Your task to perform on an android device: Search for the best running shoes on Nike. Image 0: 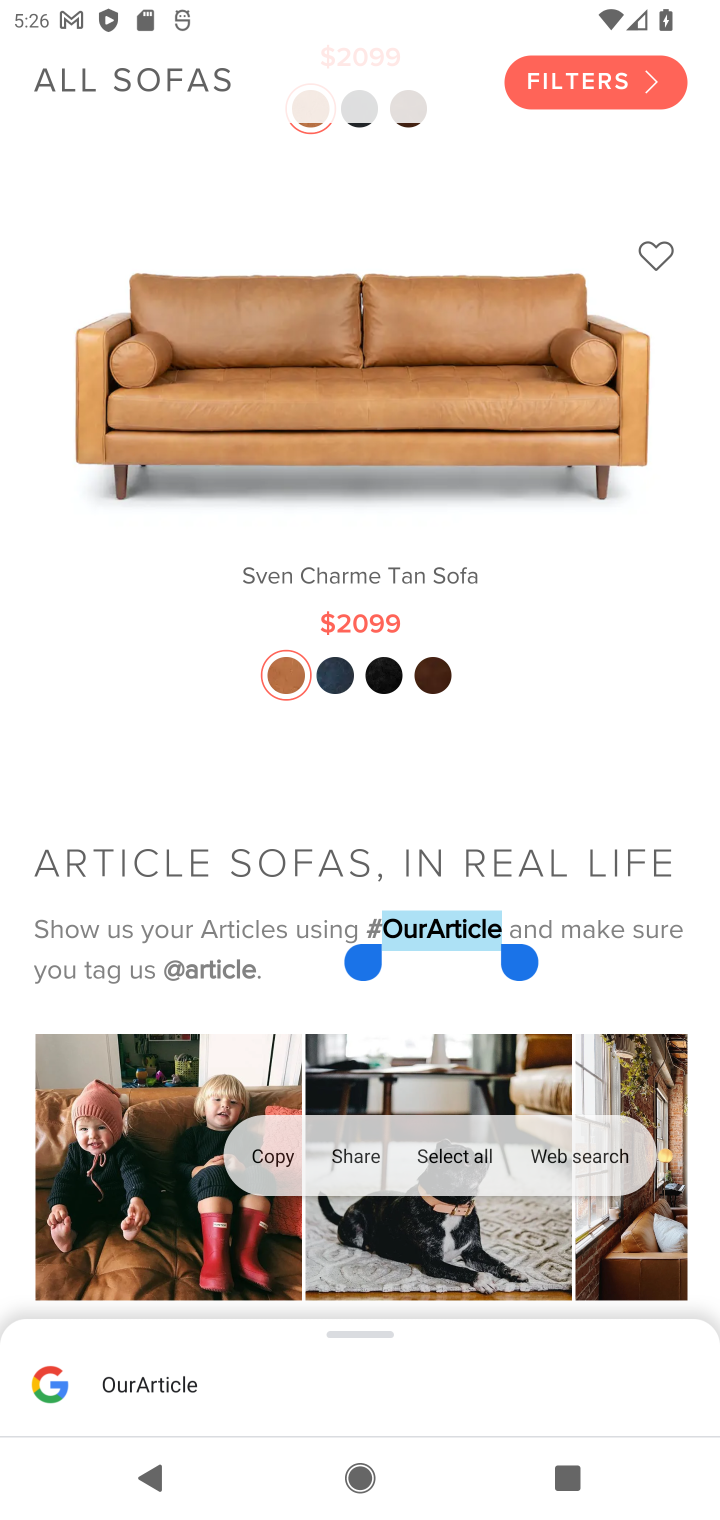
Step 0: press home button
Your task to perform on an android device: Search for the best running shoes on Nike. Image 1: 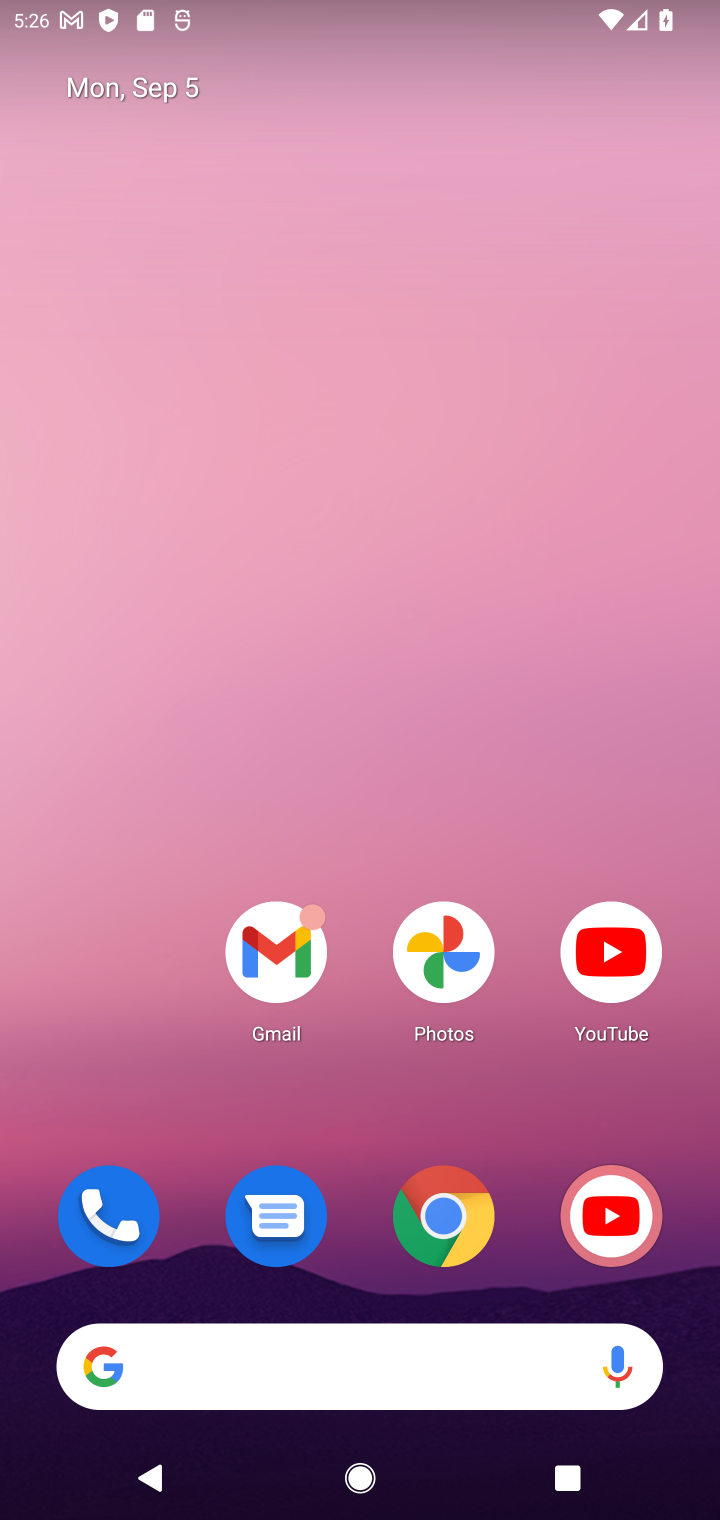
Step 1: drag from (357, 754) to (400, 34)
Your task to perform on an android device: Search for the best running shoes on Nike. Image 2: 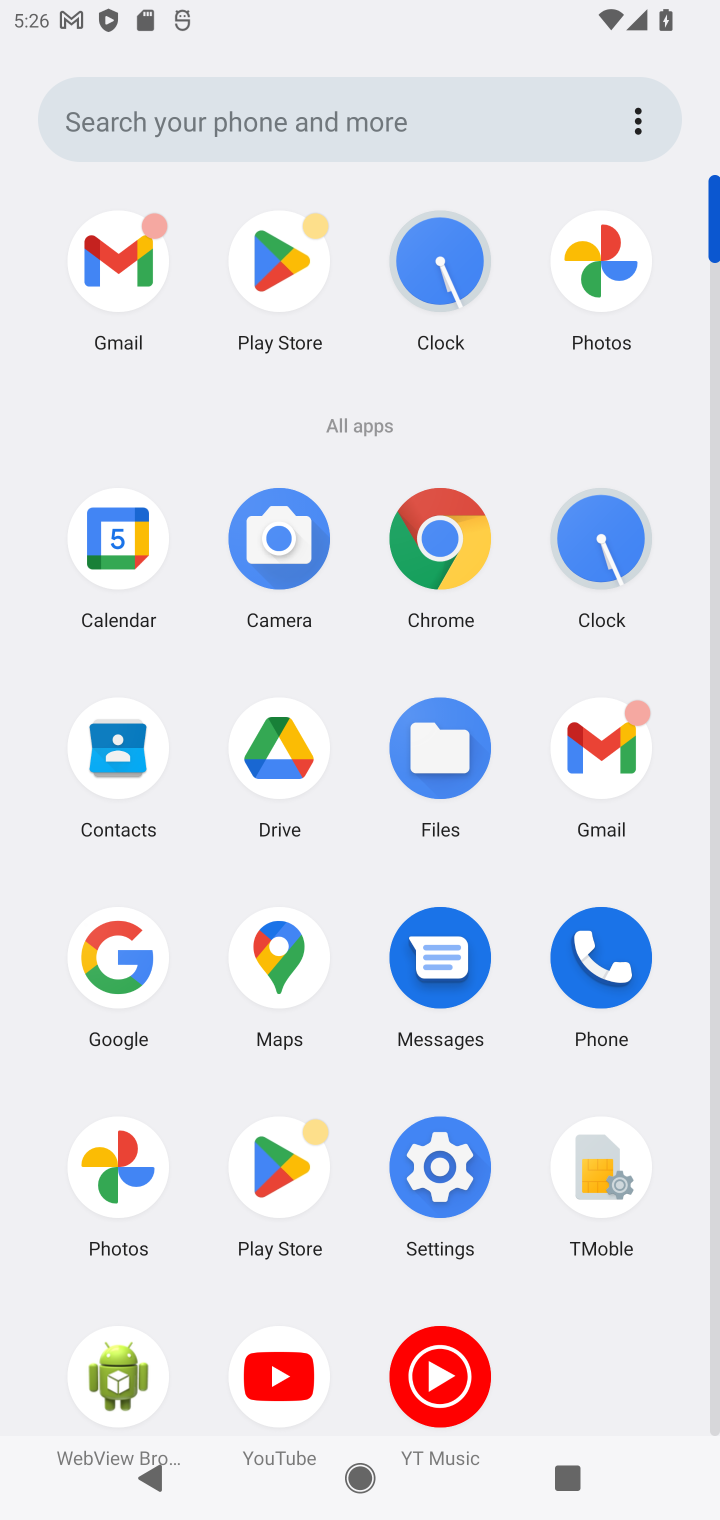
Step 2: click (434, 529)
Your task to perform on an android device: Search for the best running shoes on Nike. Image 3: 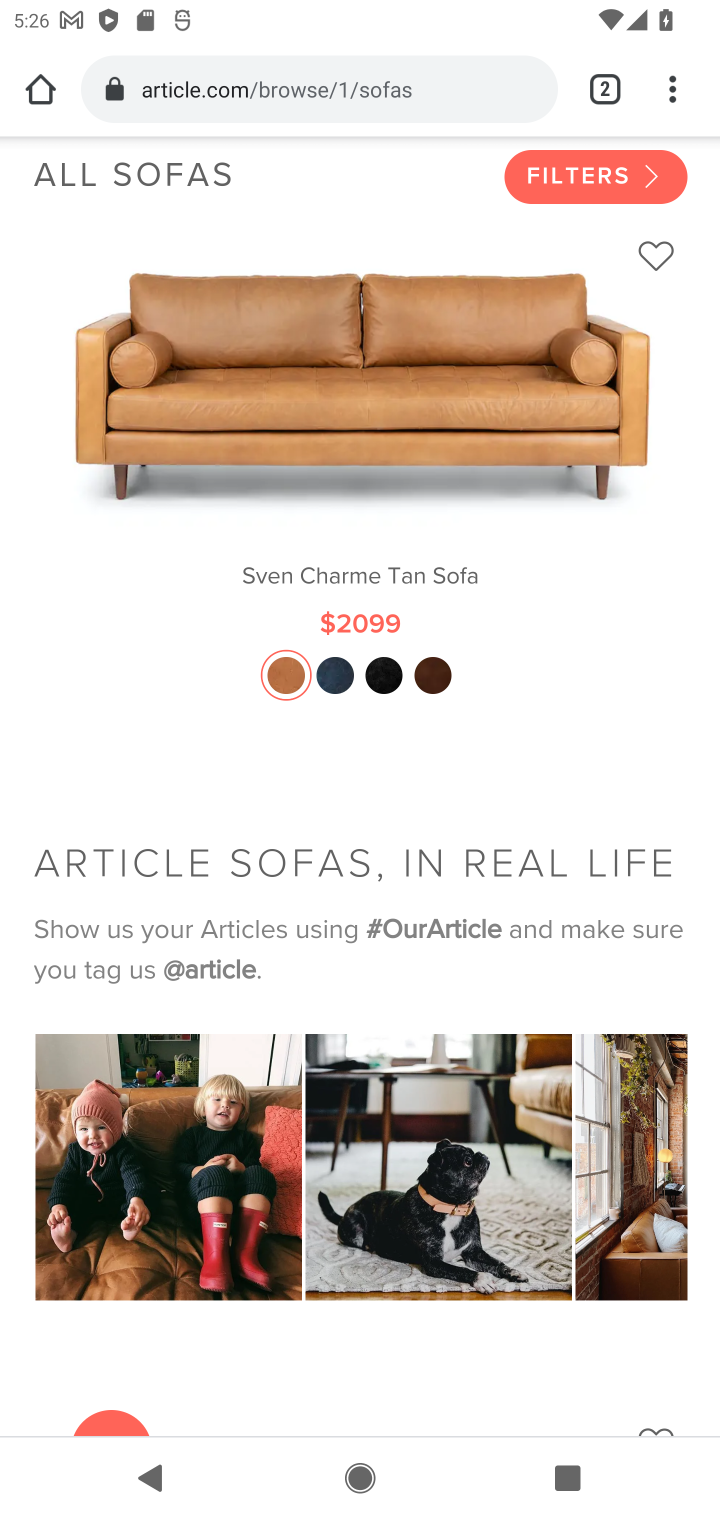
Step 3: drag from (453, 1169) to (452, 287)
Your task to perform on an android device: Search for the best running shoes on Nike. Image 4: 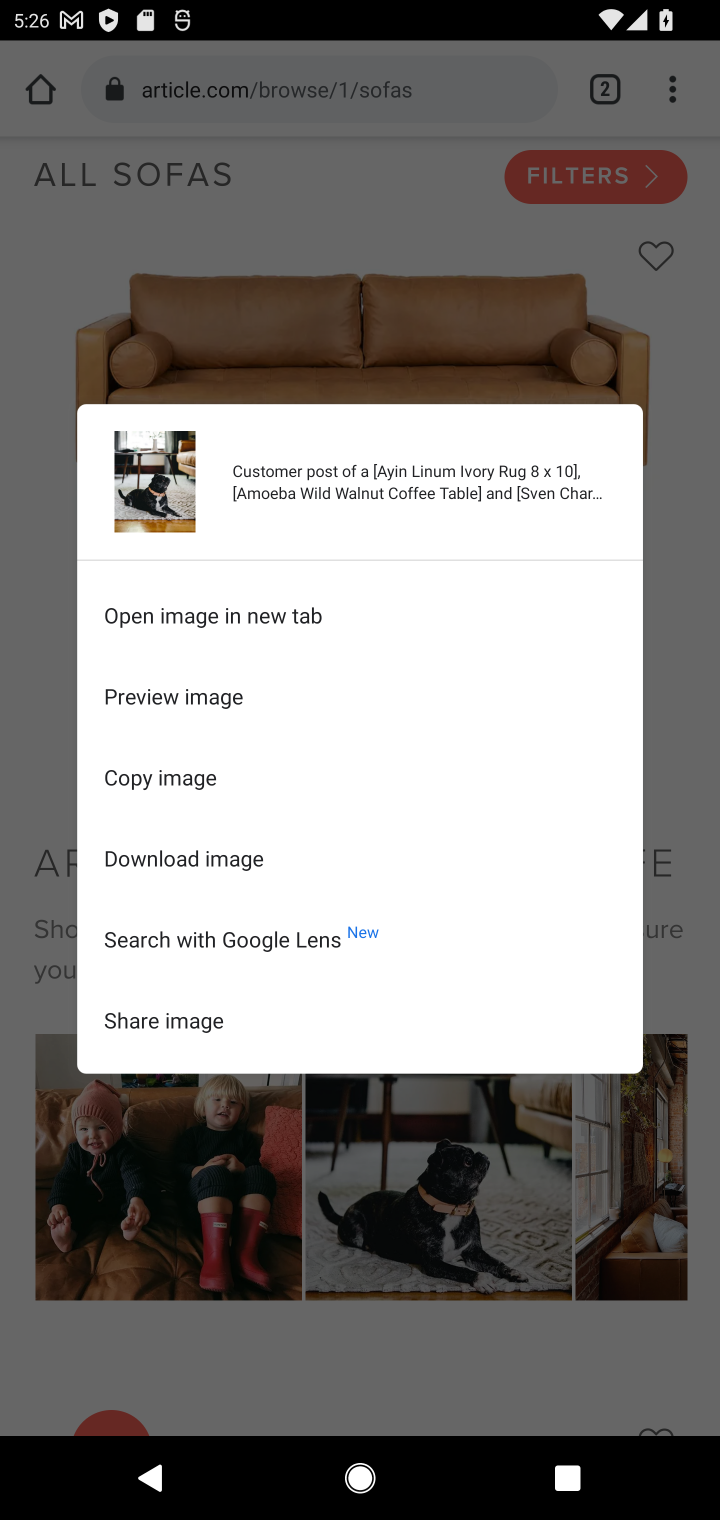
Step 4: click (327, 1226)
Your task to perform on an android device: Search for the best running shoes on Nike. Image 5: 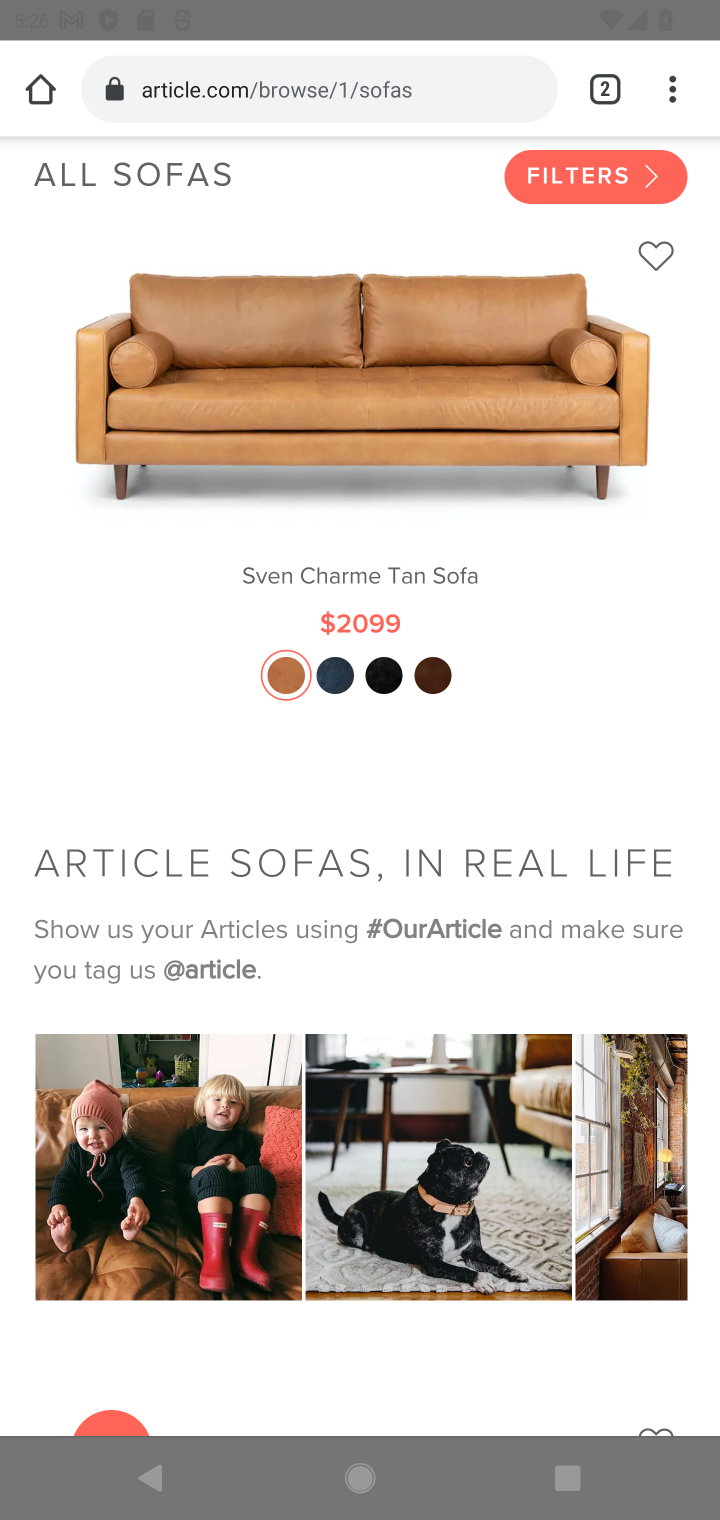
Step 5: click (612, 93)
Your task to perform on an android device: Search for the best running shoes on Nike. Image 6: 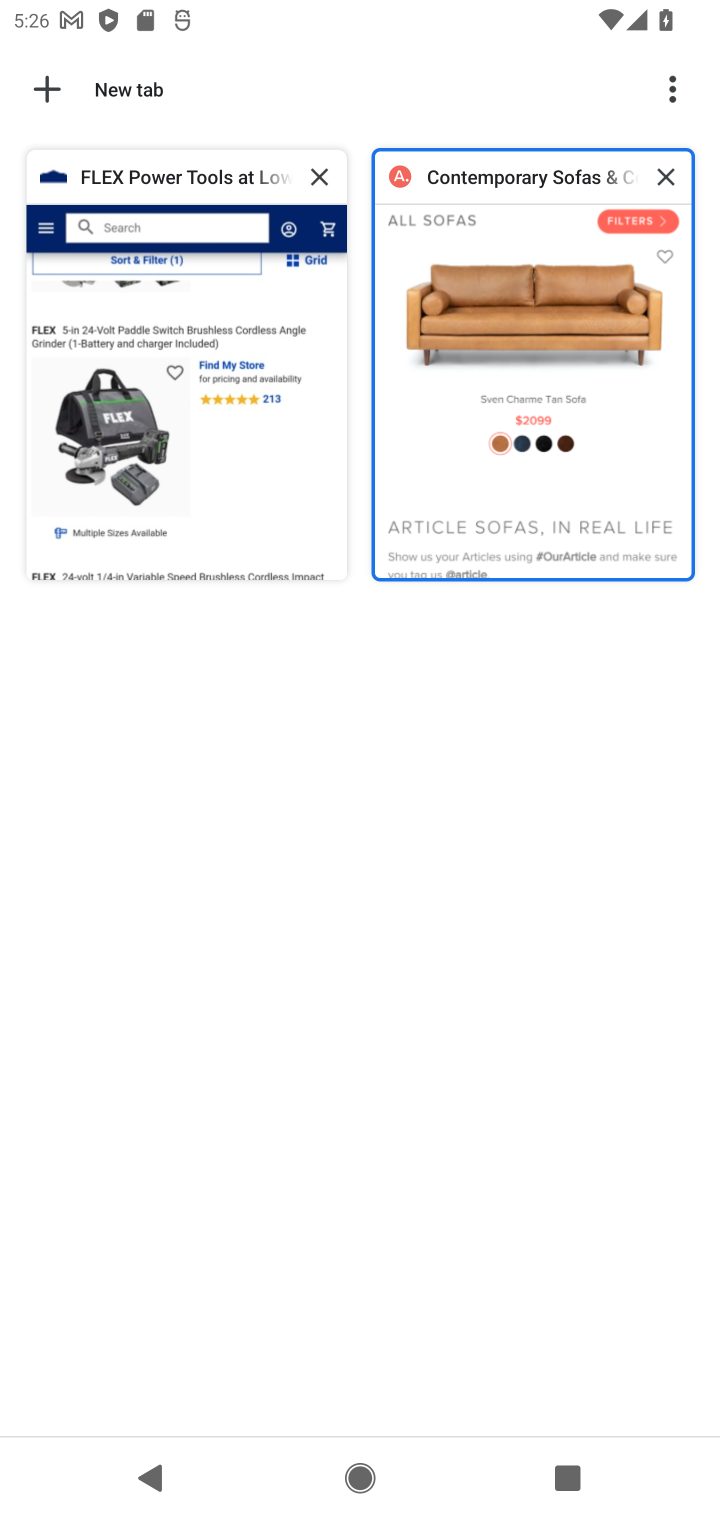
Step 6: click (658, 171)
Your task to perform on an android device: Search for the best running shoes on Nike. Image 7: 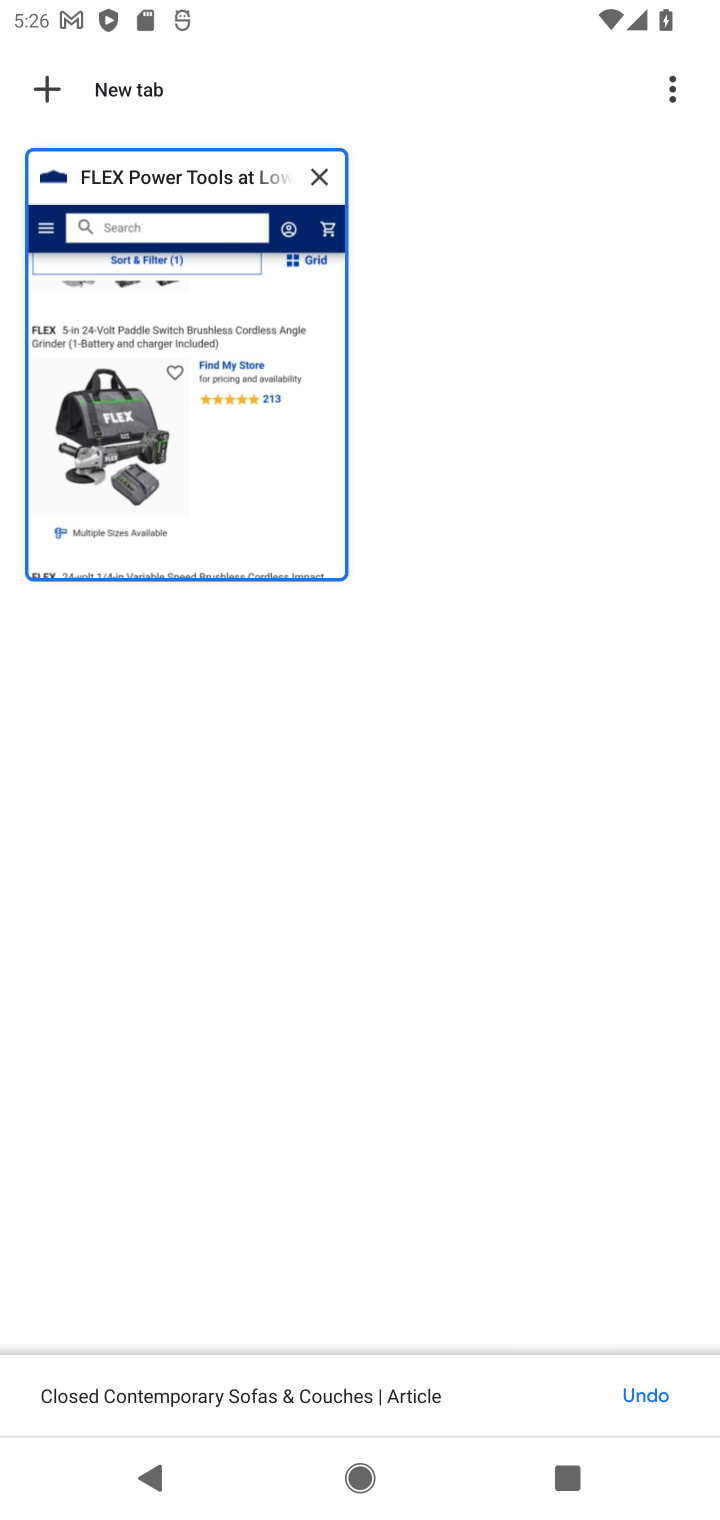
Step 7: click (320, 171)
Your task to perform on an android device: Search for the best running shoes on Nike. Image 8: 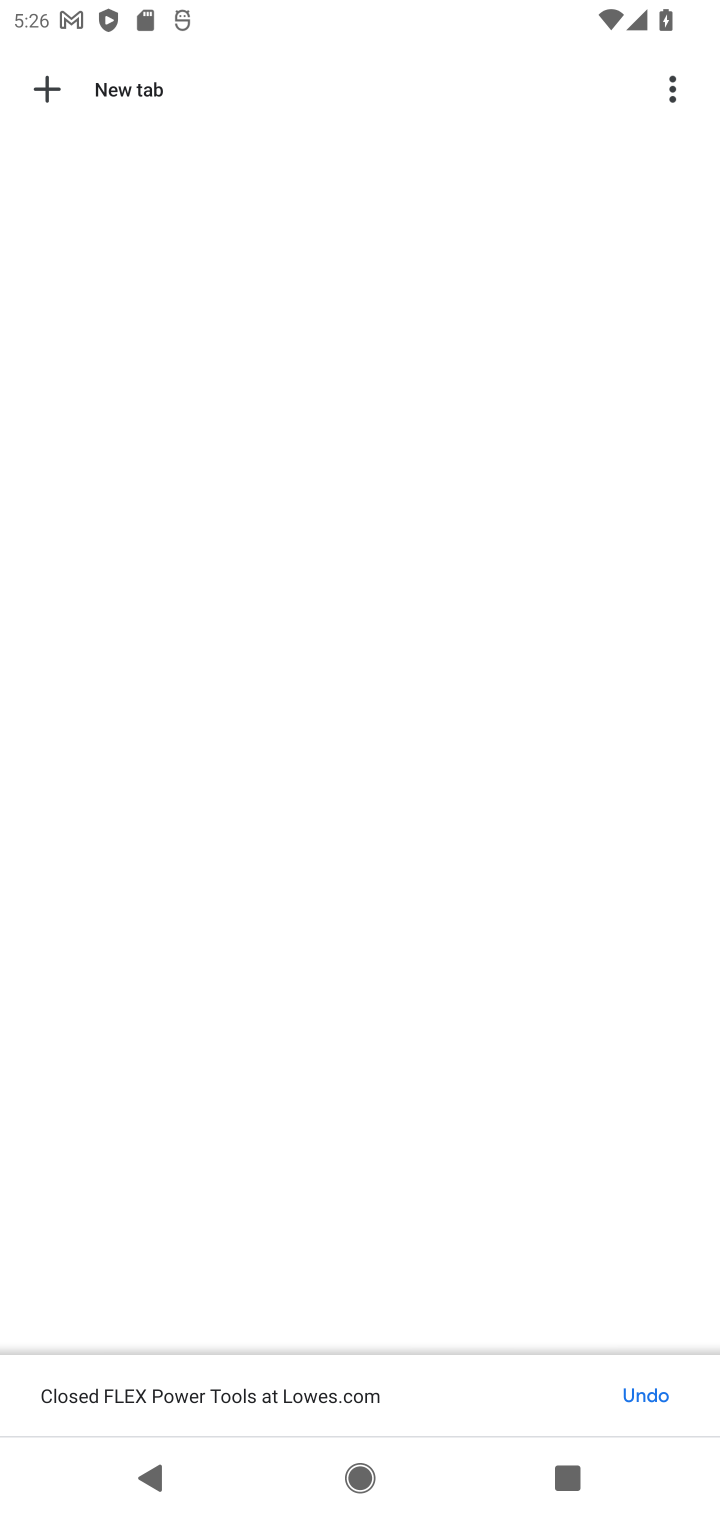
Step 8: click (41, 81)
Your task to perform on an android device: Search for the best running shoes on Nike. Image 9: 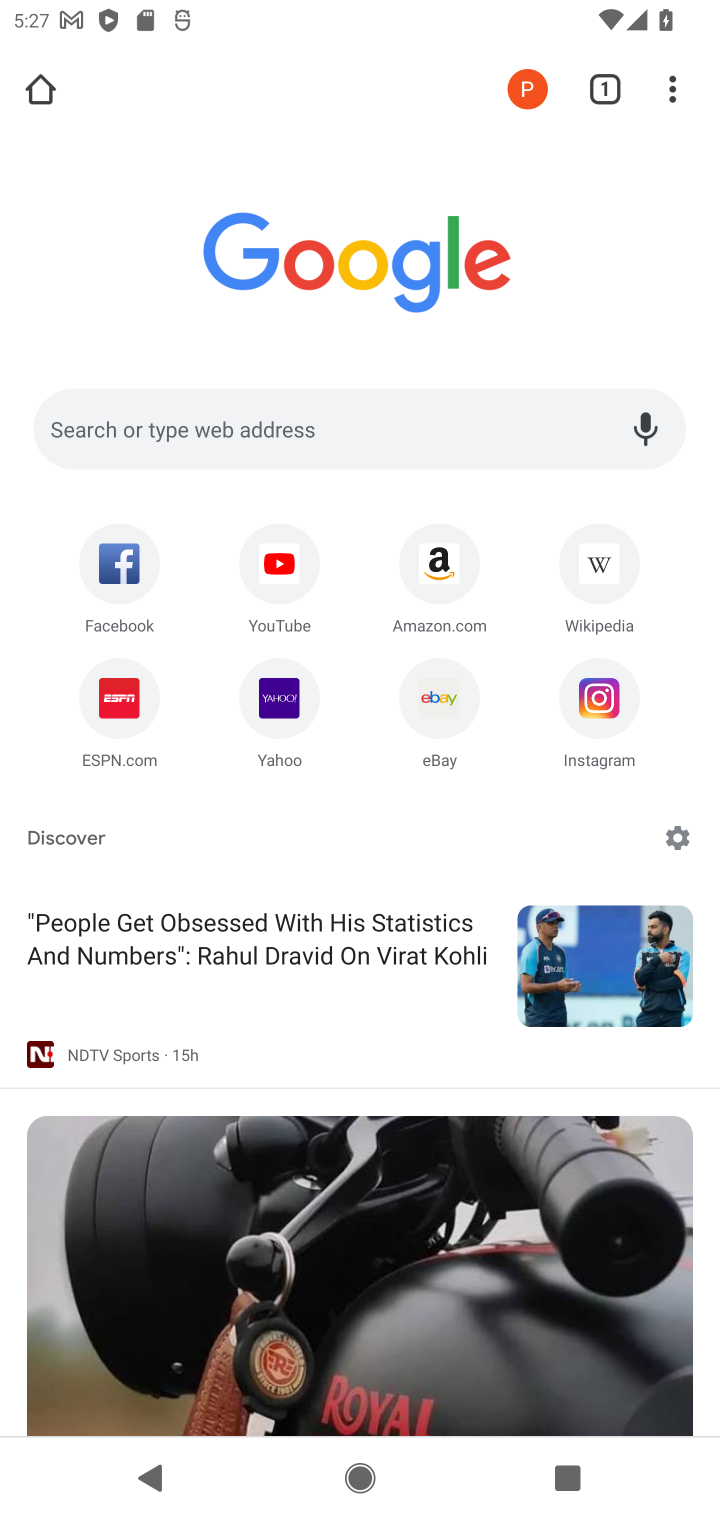
Step 9: click (286, 417)
Your task to perform on an android device: Search for the best running shoes on Nike. Image 10: 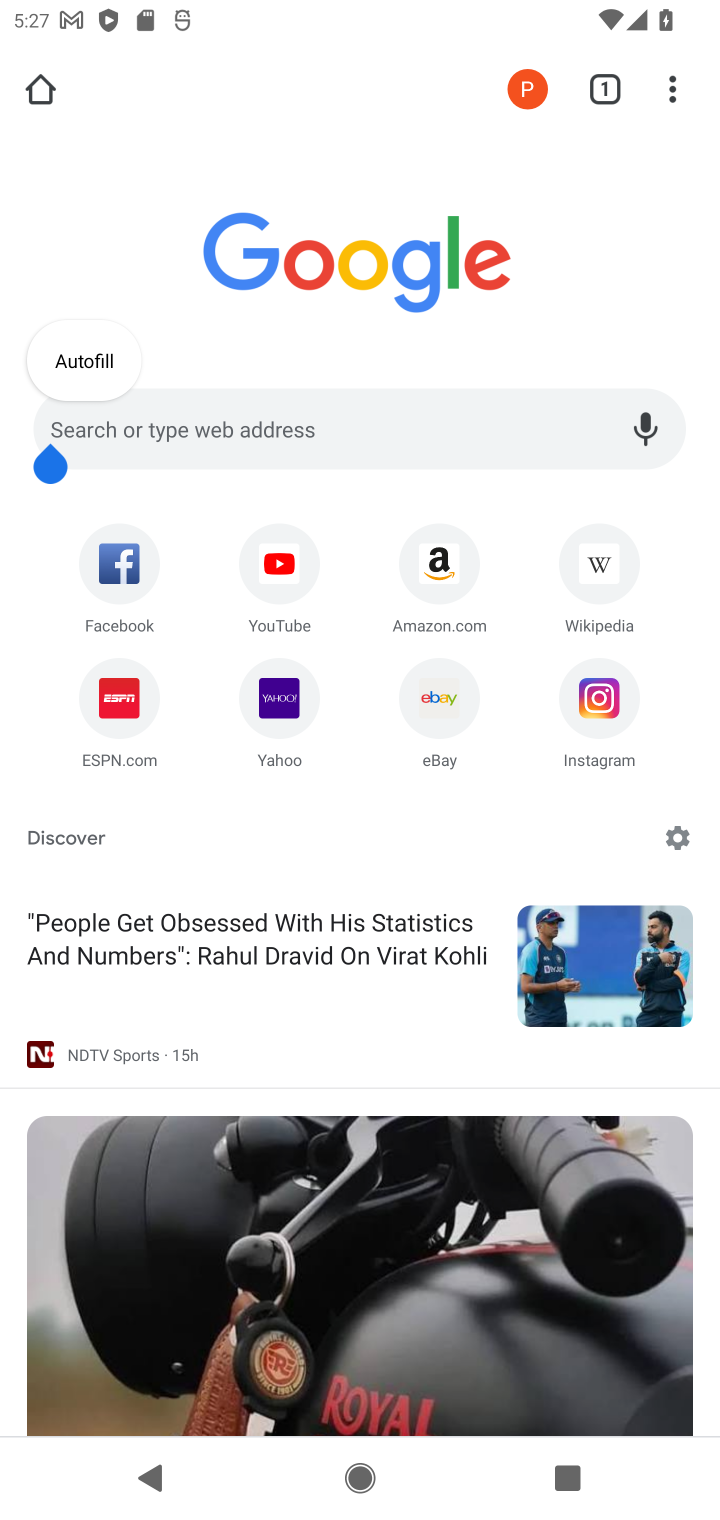
Step 10: type "best running shoes on Nike"
Your task to perform on an android device: Search for the best running shoes on Nike. Image 11: 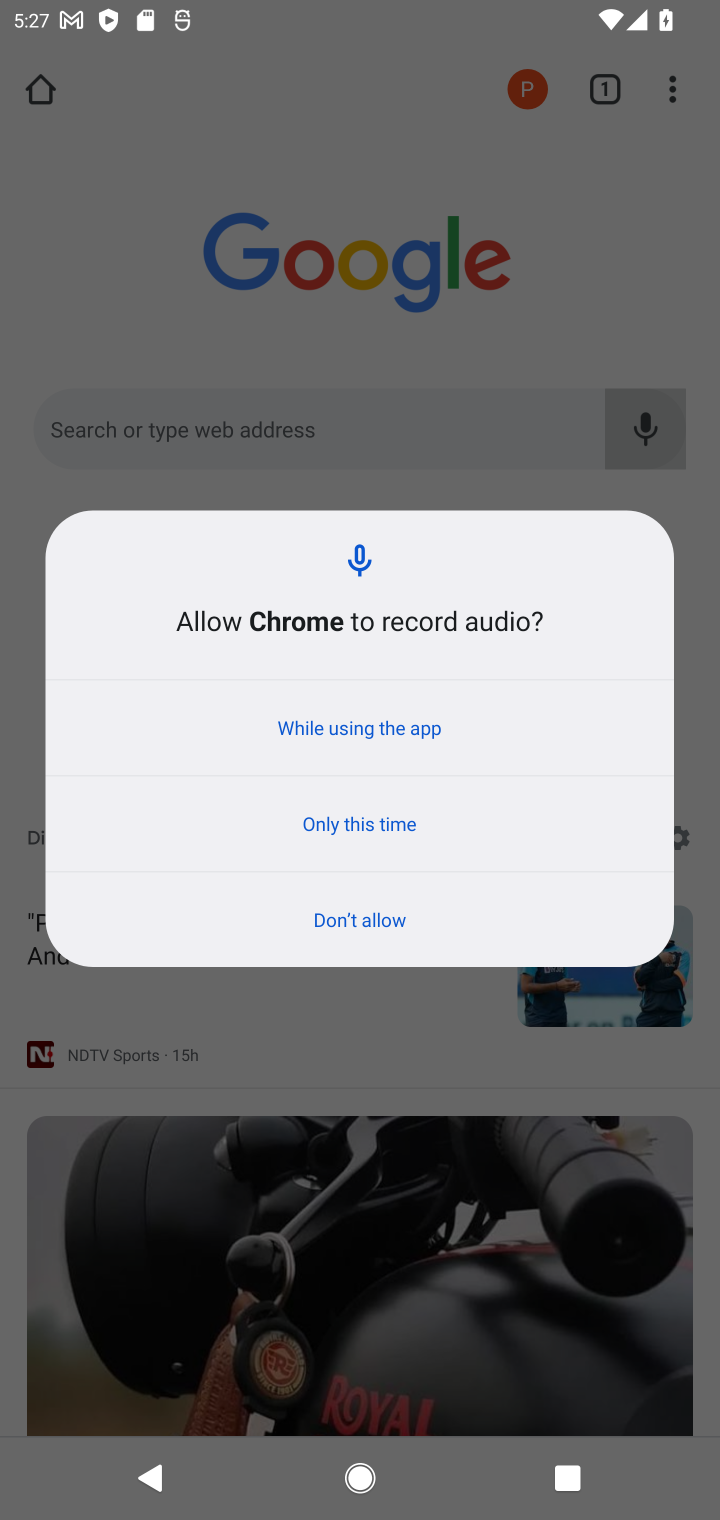
Step 11: click (382, 1173)
Your task to perform on an android device: Search for the best running shoes on Nike. Image 12: 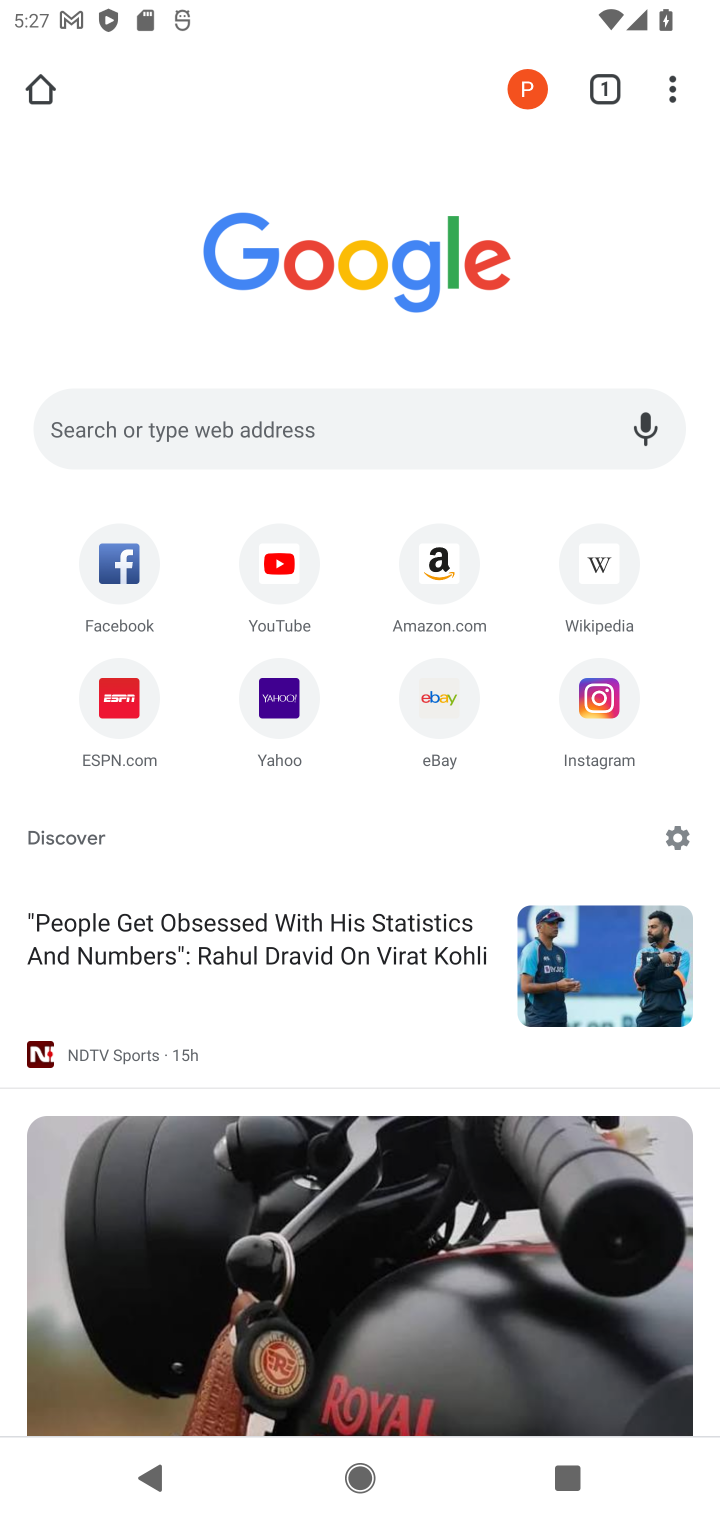
Step 12: click (292, 404)
Your task to perform on an android device: Search for the best running shoes on Nike. Image 13: 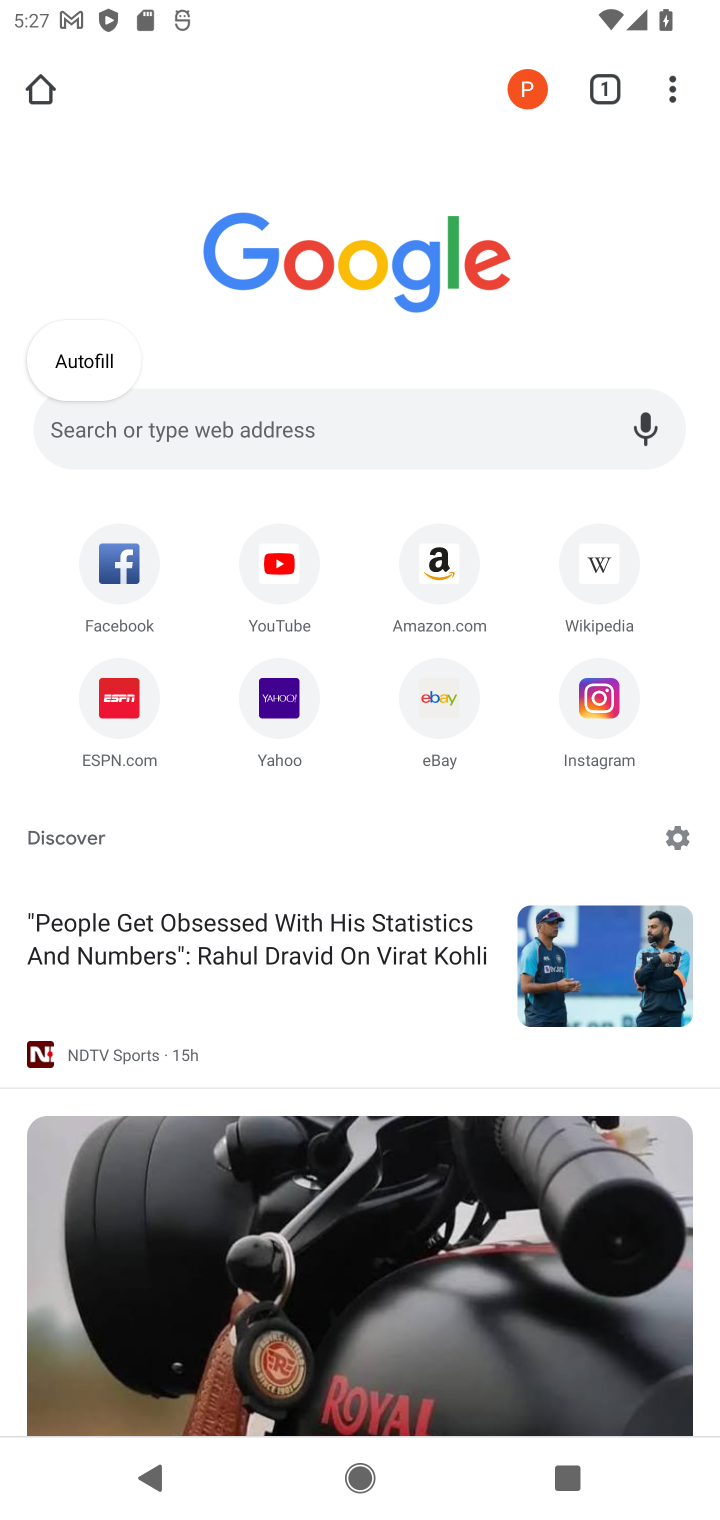
Step 13: click (189, 421)
Your task to perform on an android device: Search for the best running shoes on Nike. Image 14: 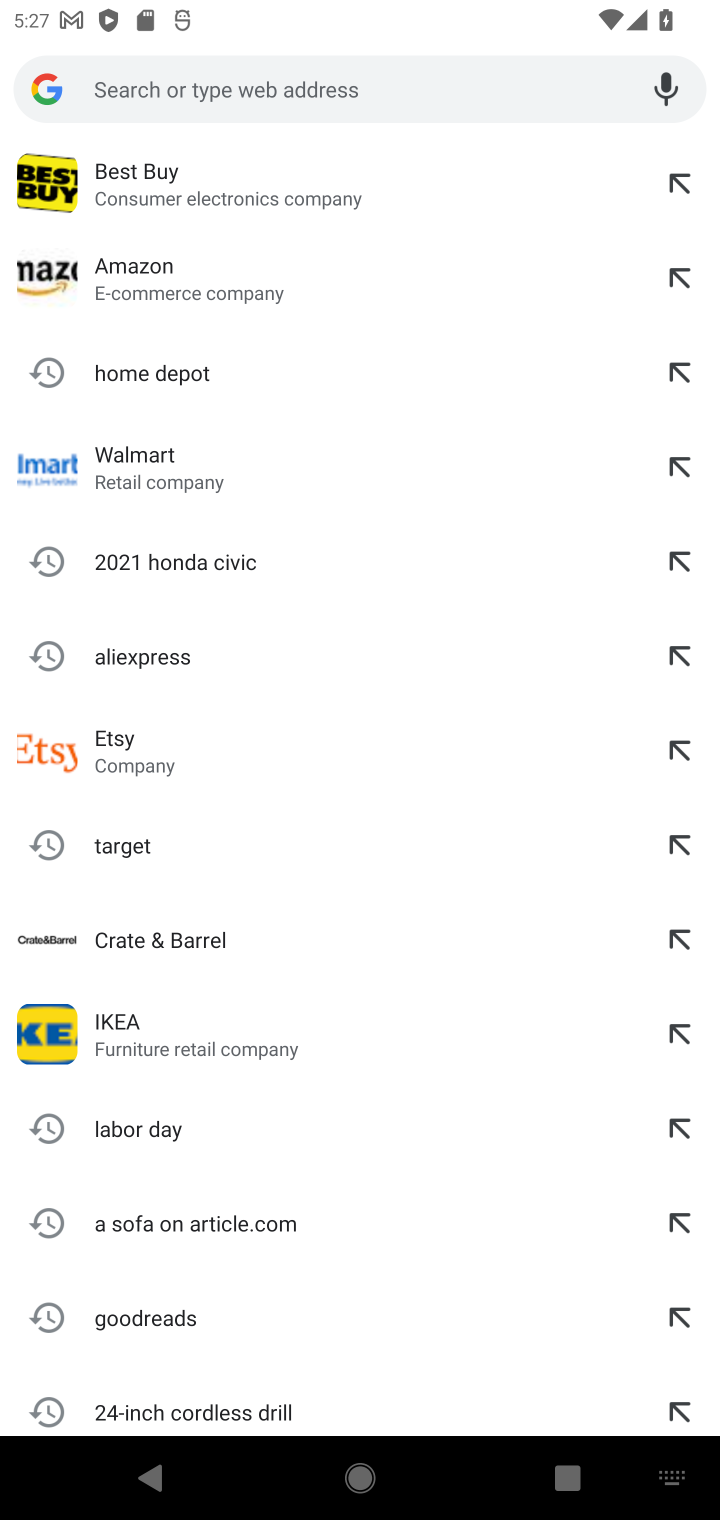
Step 14: type "best running shoes on Nike"
Your task to perform on an android device: Search for the best running shoes on Nike. Image 15: 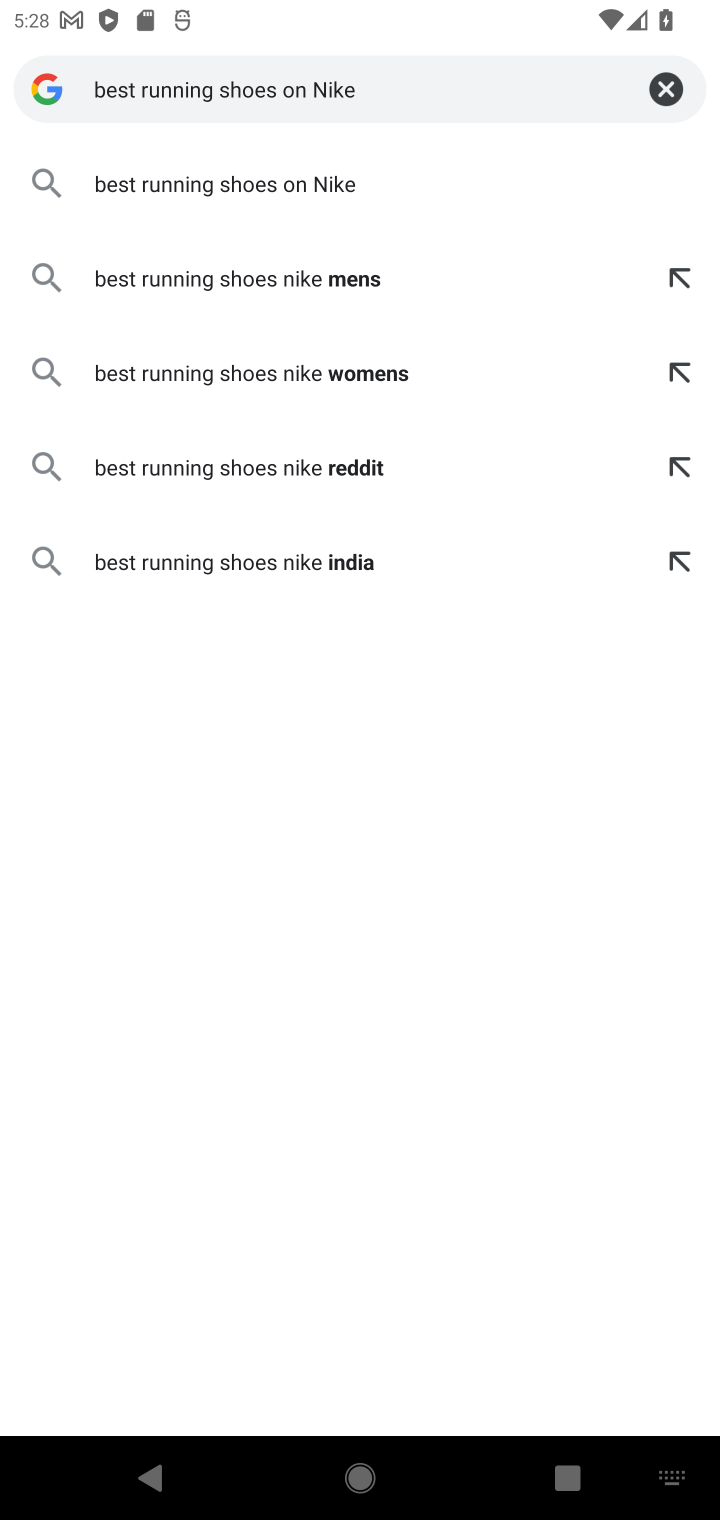
Step 15: click (279, 186)
Your task to perform on an android device: Search for the best running shoes on Nike. Image 16: 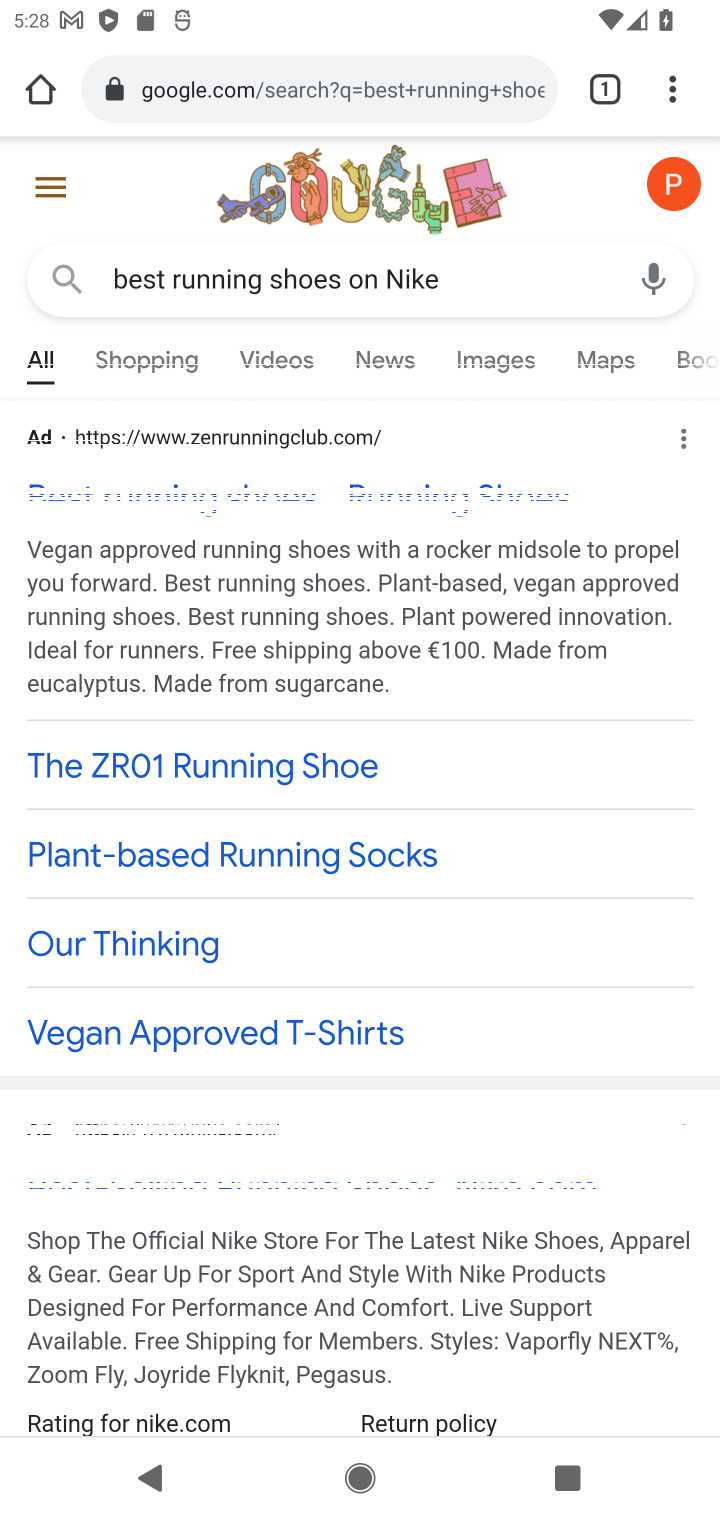
Step 16: drag from (319, 1094) to (299, 465)
Your task to perform on an android device: Search for the best running shoes on Nike. Image 17: 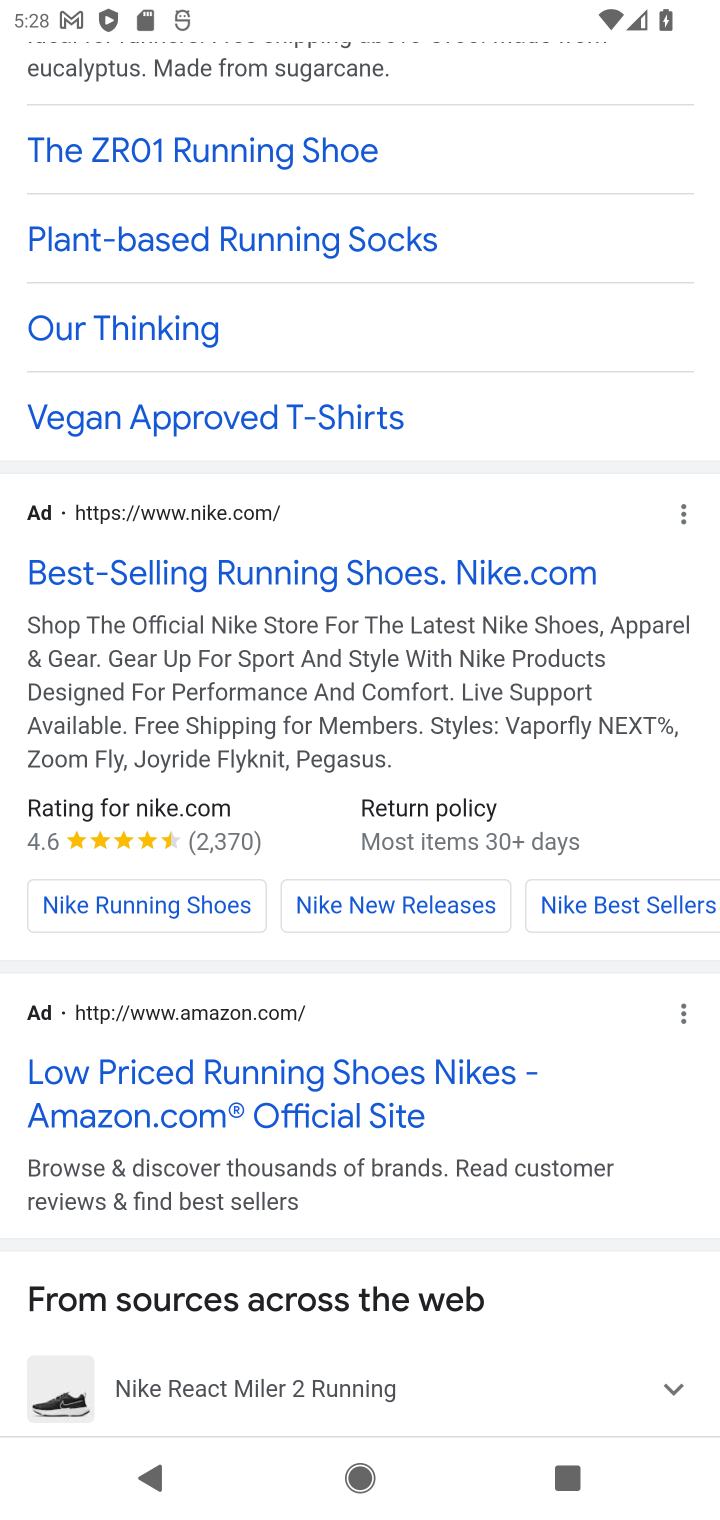
Step 17: click (274, 757)
Your task to perform on an android device: Search for the best running shoes on Nike. Image 18: 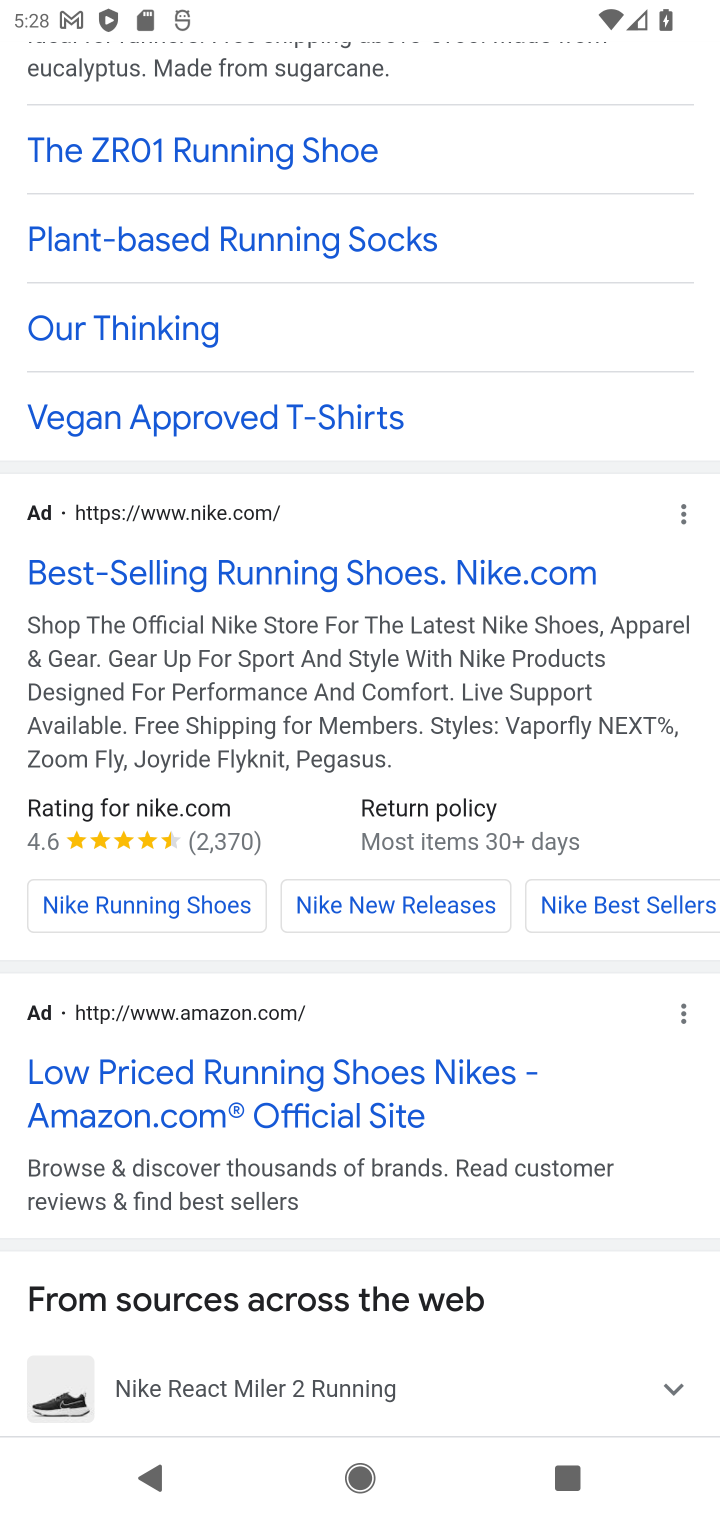
Step 18: click (265, 582)
Your task to perform on an android device: Search for the best running shoes on Nike. Image 19: 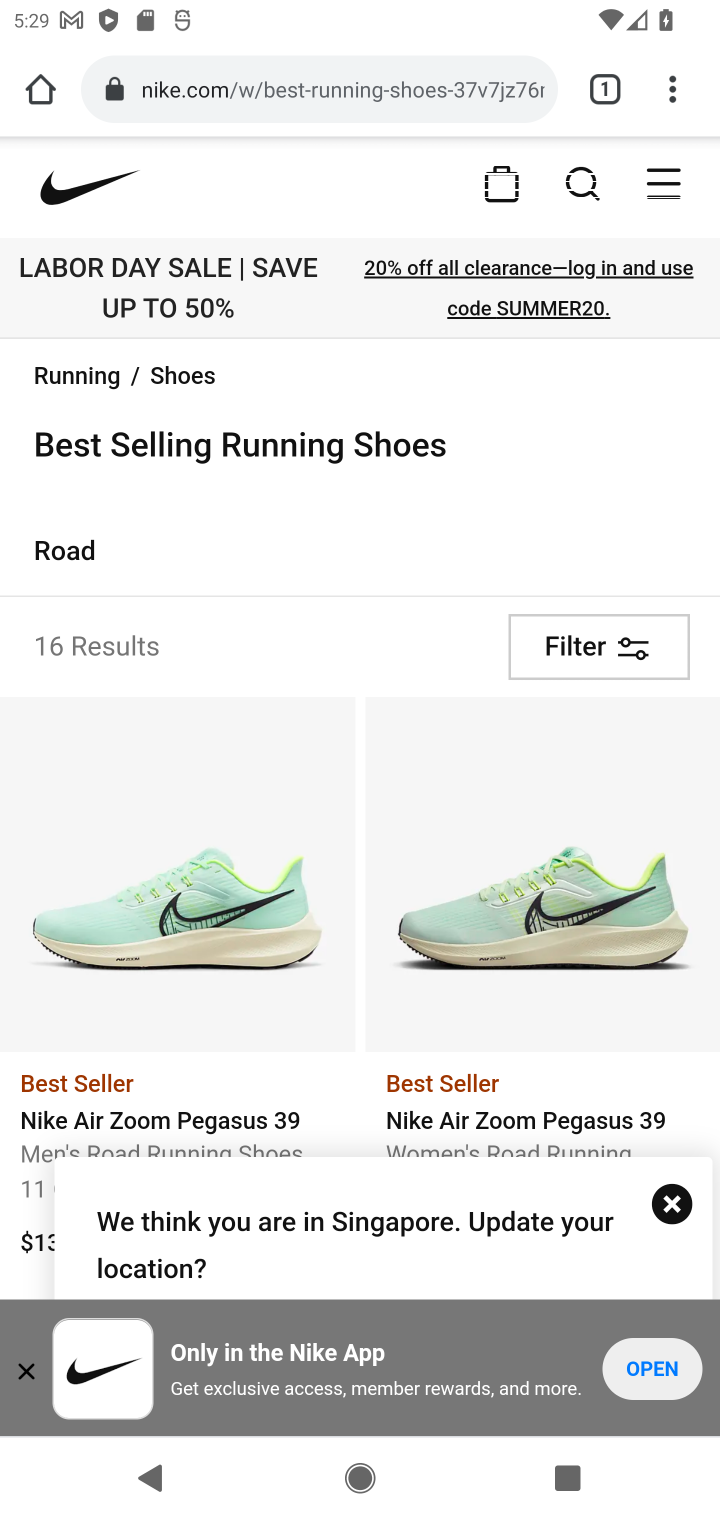
Step 19: drag from (359, 1144) to (376, 337)
Your task to perform on an android device: Search for the best running shoes on Nike. Image 20: 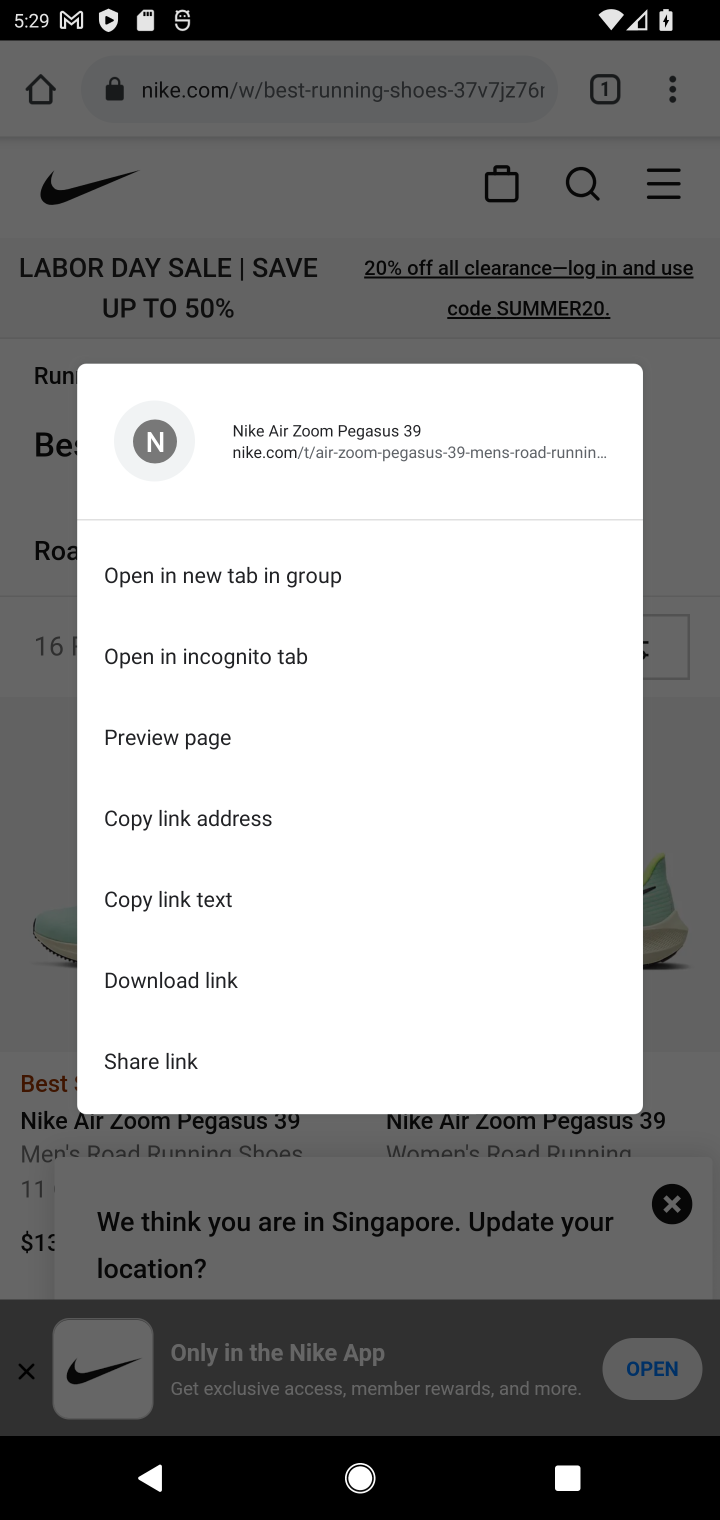
Step 20: click (187, 258)
Your task to perform on an android device: Search for the best running shoes on Nike. Image 21: 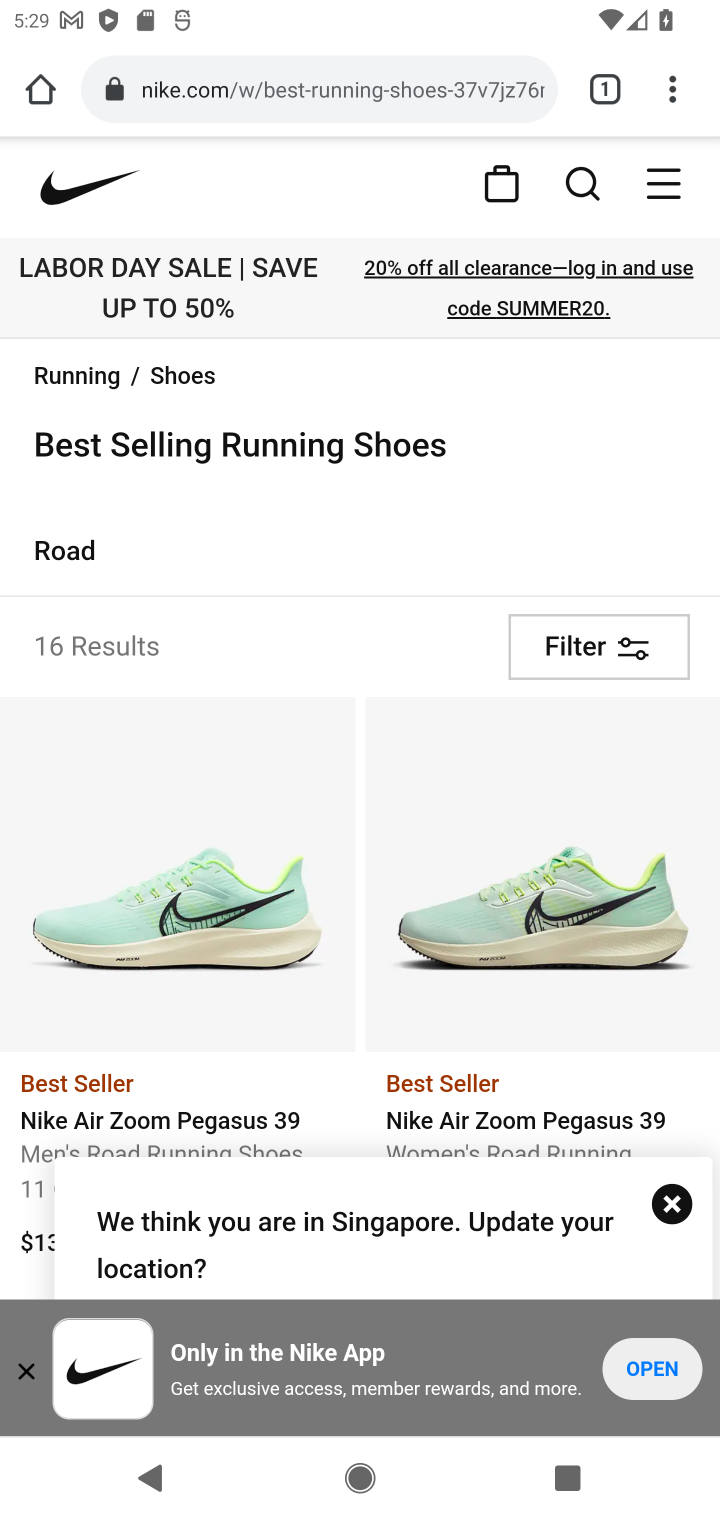
Step 21: drag from (340, 1054) to (499, 18)
Your task to perform on an android device: Search for the best running shoes on Nike. Image 22: 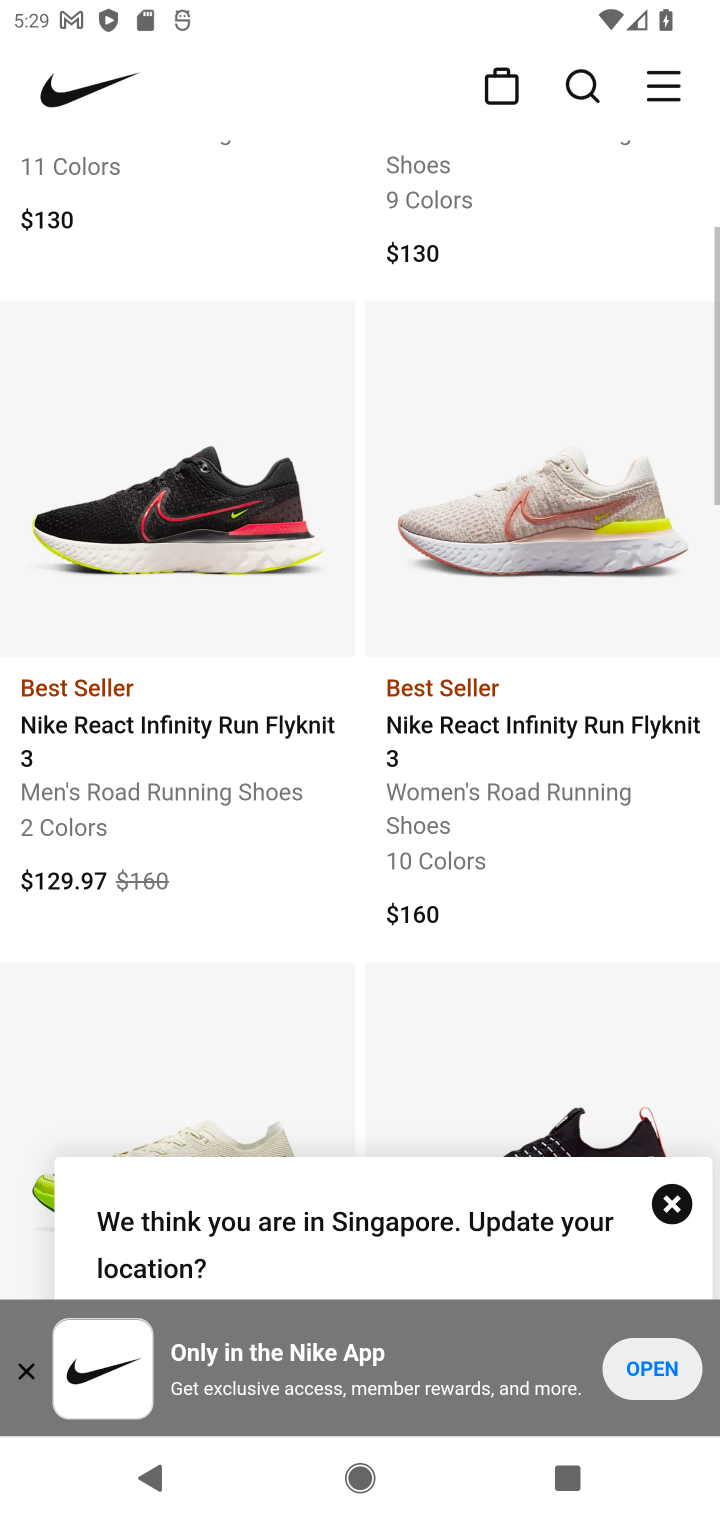
Step 22: drag from (362, 933) to (441, 293)
Your task to perform on an android device: Search for the best running shoes on Nike. Image 23: 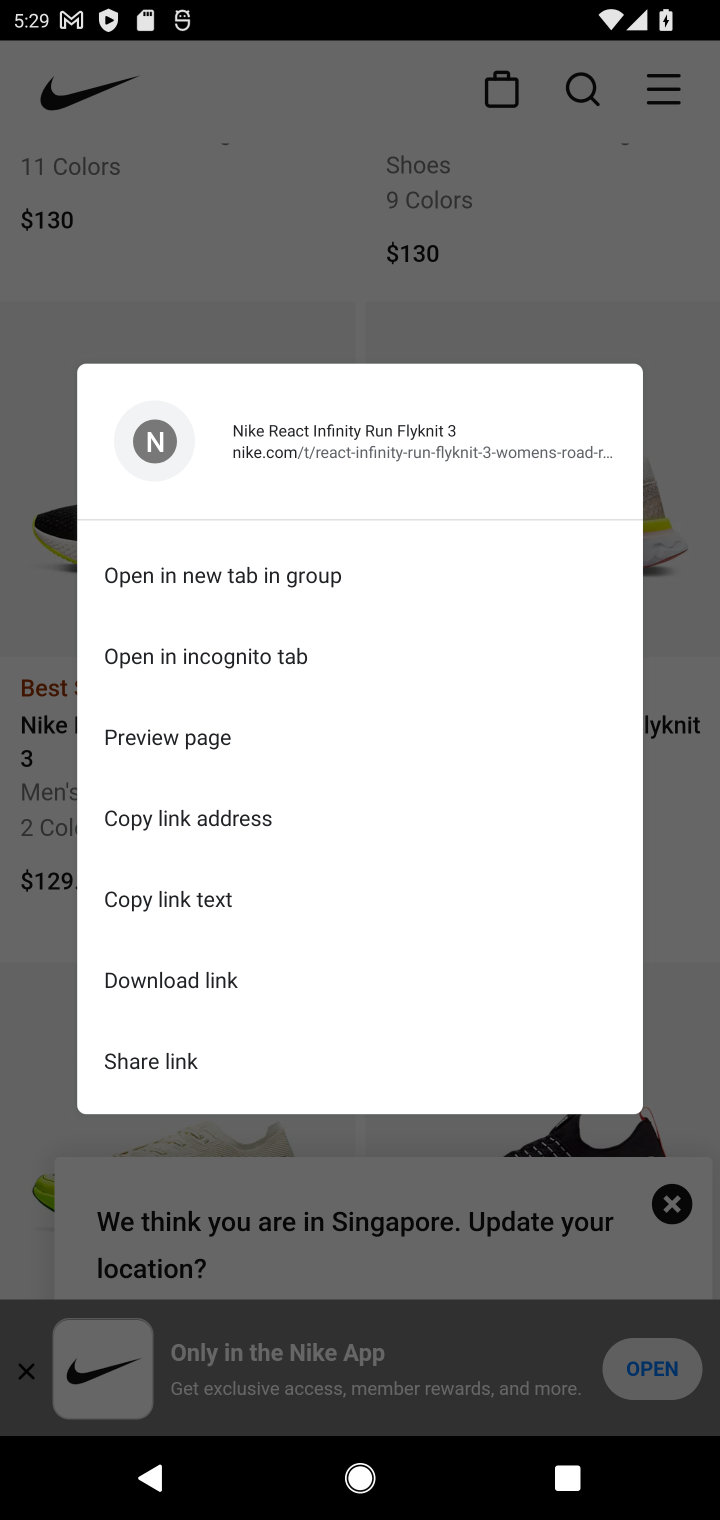
Step 23: click (247, 275)
Your task to perform on an android device: Search for the best running shoes on Nike. Image 24: 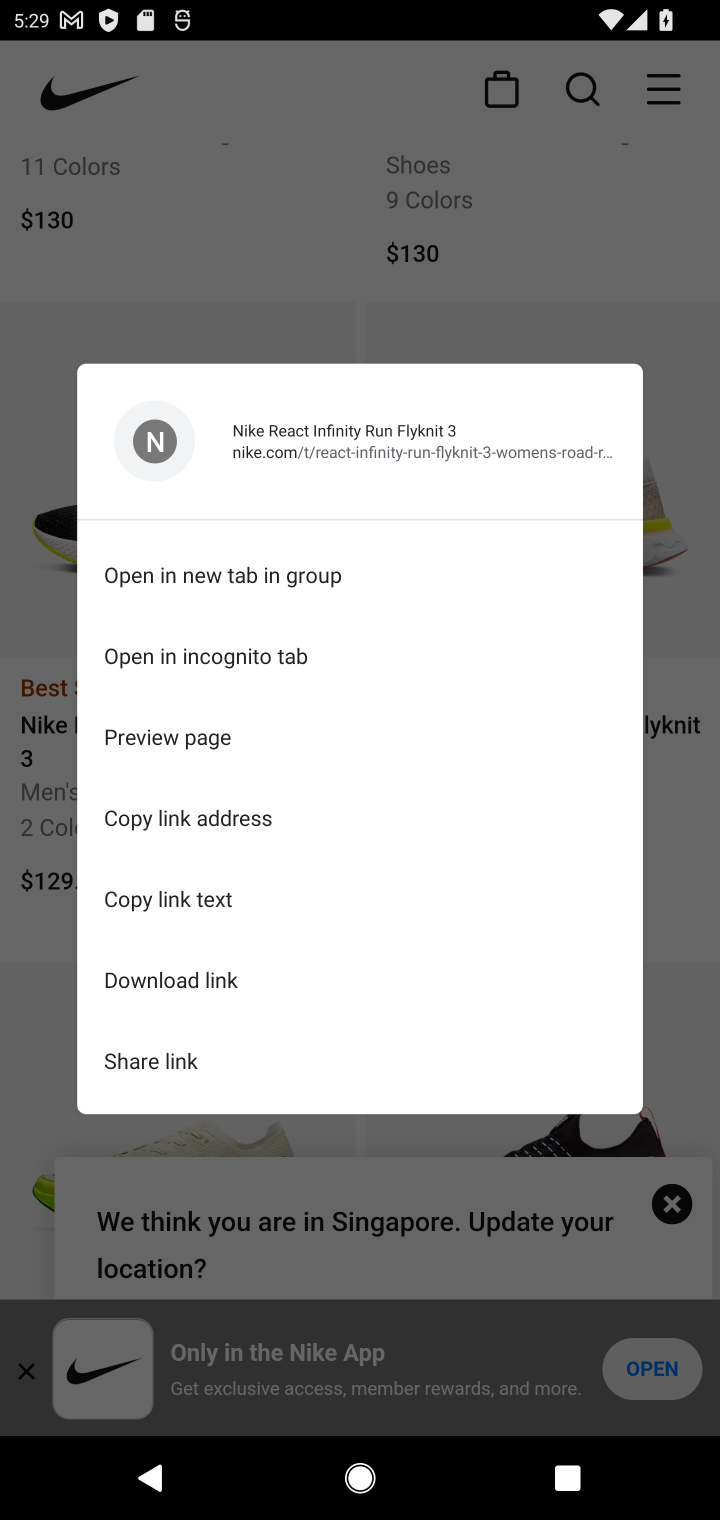
Step 24: task complete